Your task to perform on an android device: Open CNN.com Image 0: 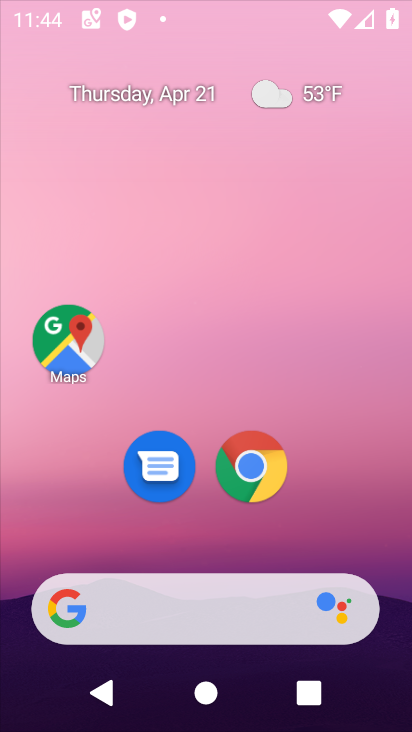
Step 0: drag from (322, 497) to (236, 18)
Your task to perform on an android device: Open CNN.com Image 1: 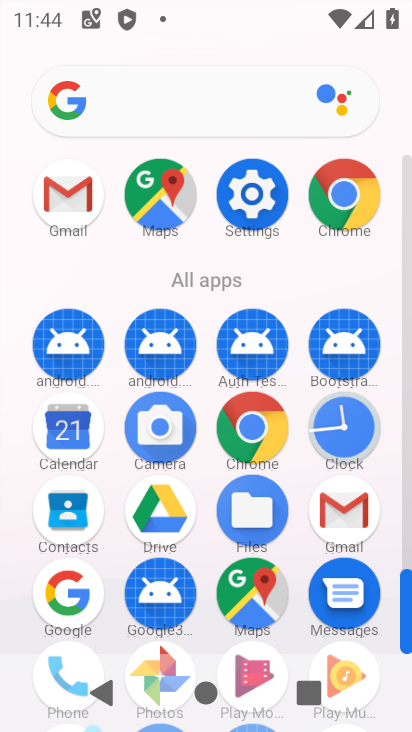
Step 1: click (335, 197)
Your task to perform on an android device: Open CNN.com Image 2: 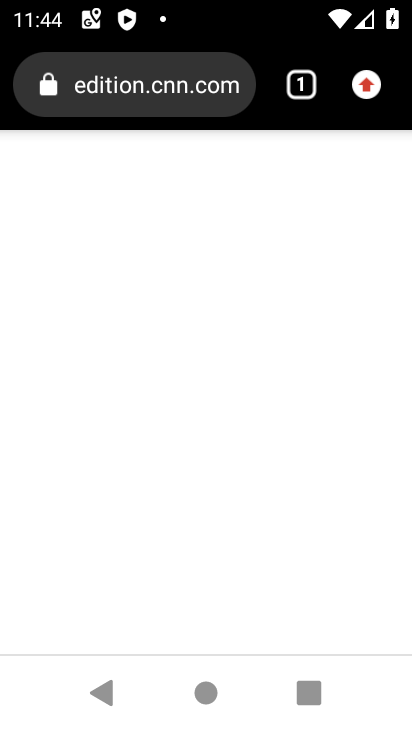
Step 2: click (177, 72)
Your task to perform on an android device: Open CNN.com Image 3: 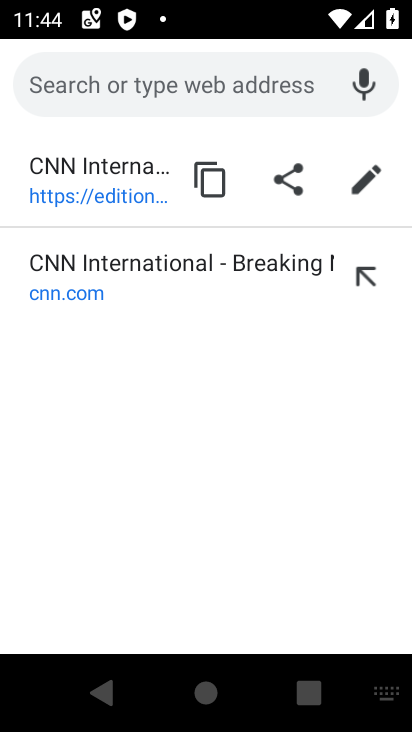
Step 3: click (94, 259)
Your task to perform on an android device: Open CNN.com Image 4: 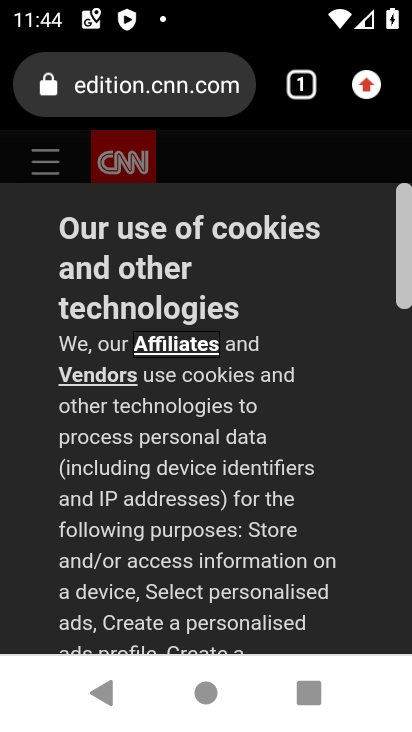
Step 4: task complete